Your task to perform on an android device: visit the assistant section in the google photos Image 0: 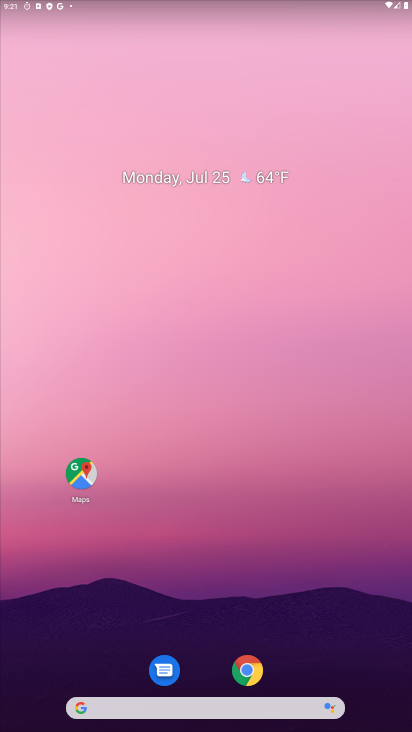
Step 0: drag from (367, 700) to (226, 11)
Your task to perform on an android device: visit the assistant section in the google photos Image 1: 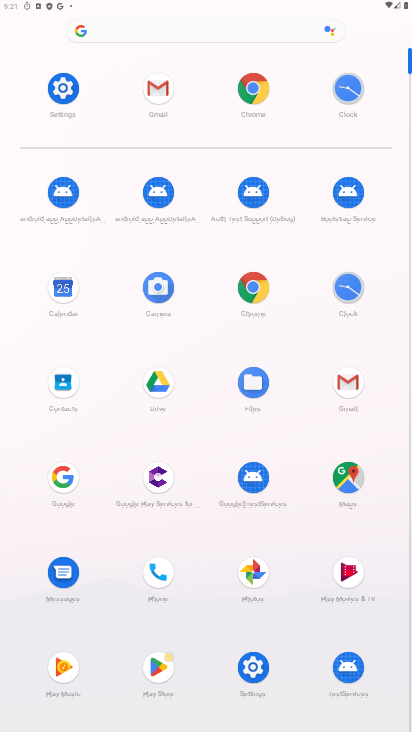
Step 1: click (256, 574)
Your task to perform on an android device: visit the assistant section in the google photos Image 2: 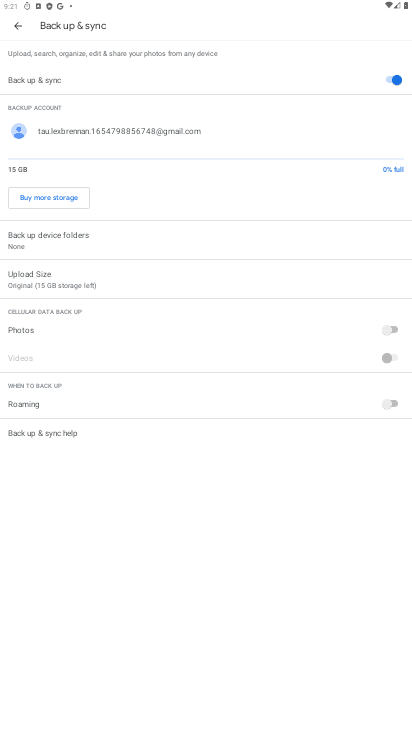
Step 2: press back button
Your task to perform on an android device: visit the assistant section in the google photos Image 3: 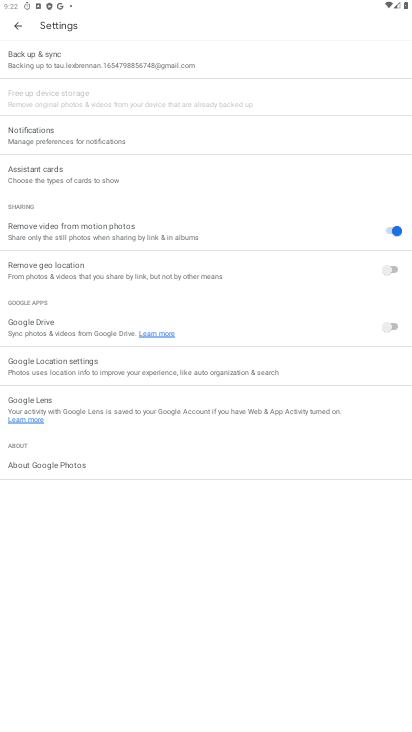
Step 3: press back button
Your task to perform on an android device: visit the assistant section in the google photos Image 4: 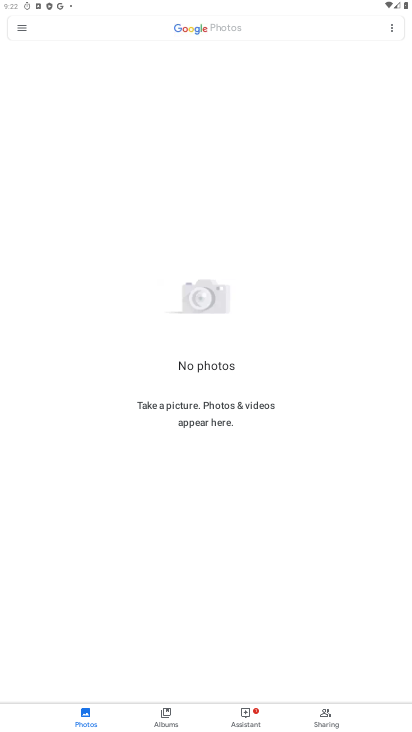
Step 4: click (234, 713)
Your task to perform on an android device: visit the assistant section in the google photos Image 5: 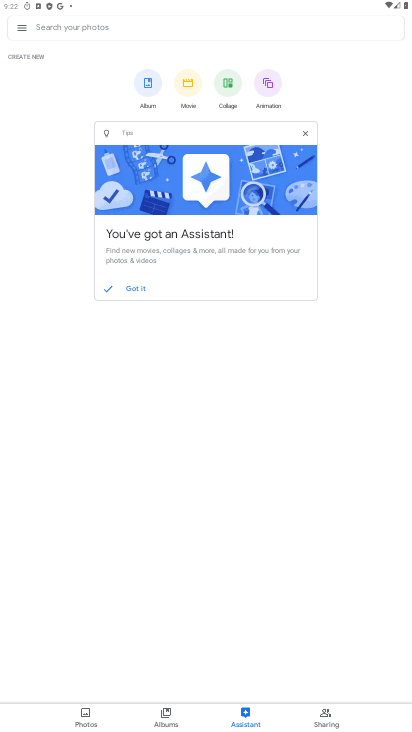
Step 5: task complete